Your task to perform on an android device: Open Wikipedia Image 0: 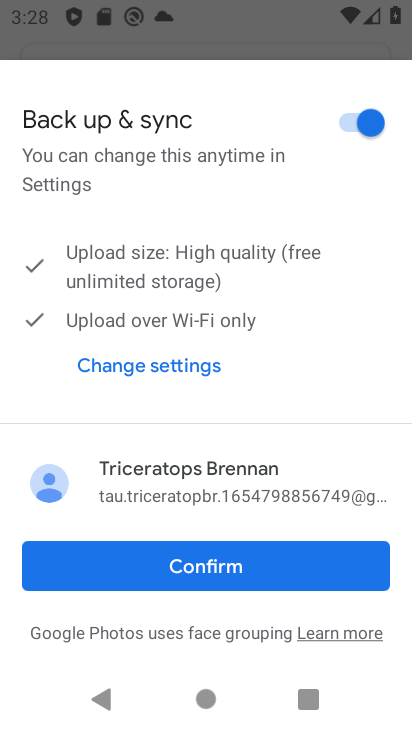
Step 0: press home button
Your task to perform on an android device: Open Wikipedia Image 1: 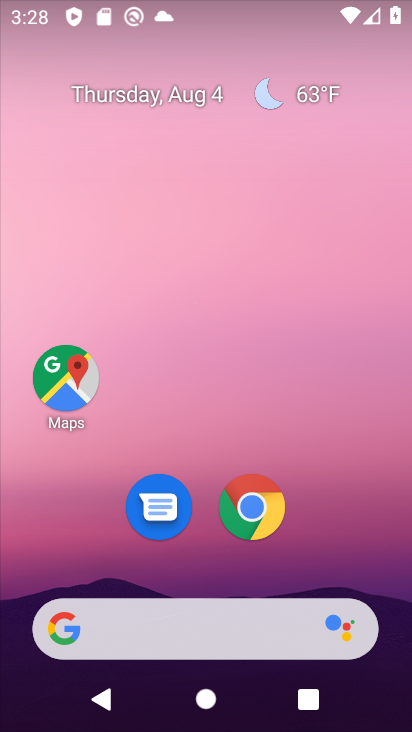
Step 1: click (97, 619)
Your task to perform on an android device: Open Wikipedia Image 2: 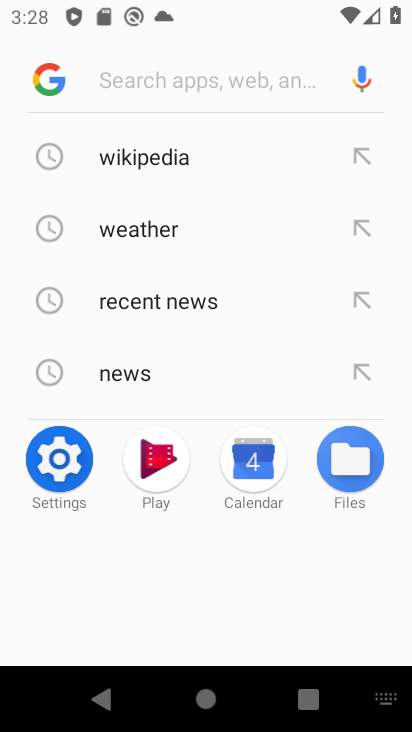
Step 2: click (111, 152)
Your task to perform on an android device: Open Wikipedia Image 3: 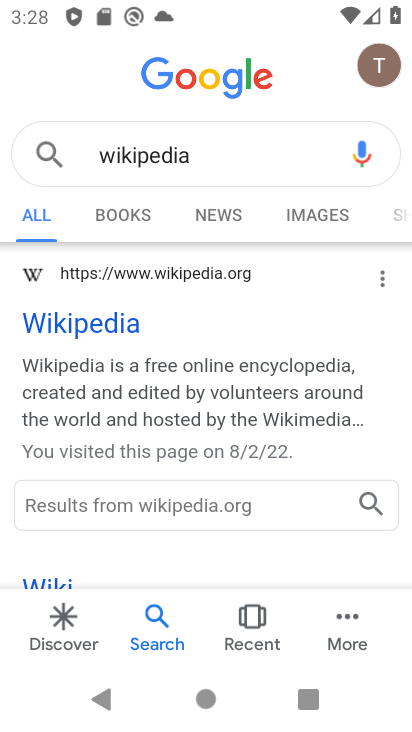
Step 3: task complete